Your task to perform on an android device: toggle airplane mode Image 0: 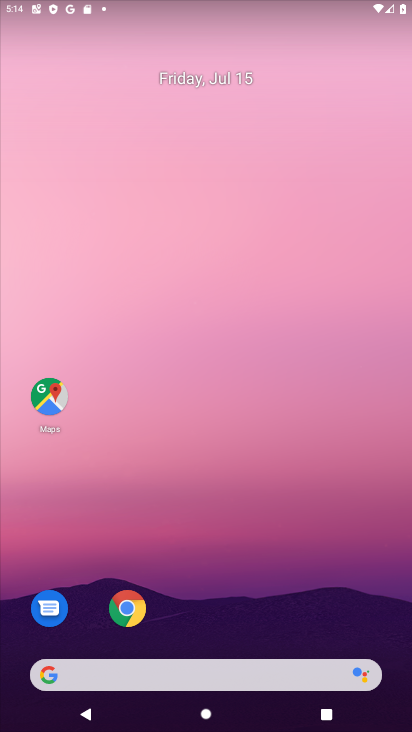
Step 0: drag from (241, 619) to (168, 0)
Your task to perform on an android device: toggle airplane mode Image 1: 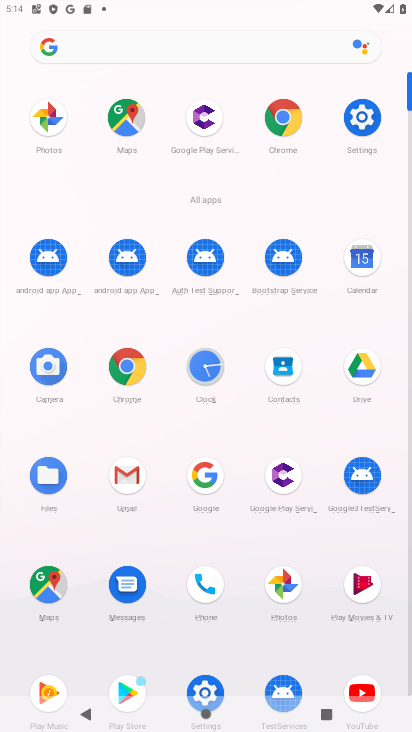
Step 1: click (368, 112)
Your task to perform on an android device: toggle airplane mode Image 2: 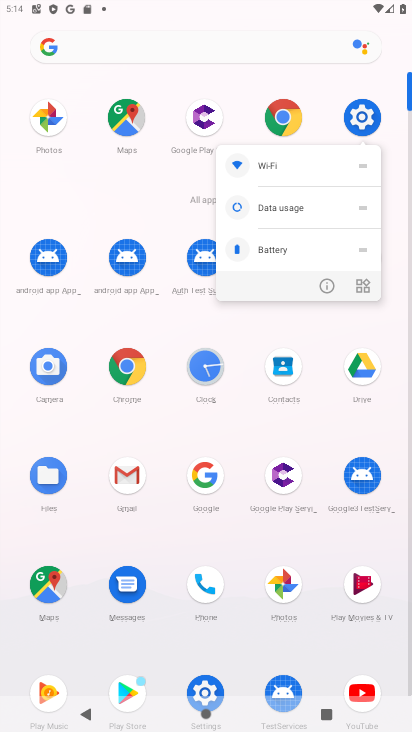
Step 2: click (366, 114)
Your task to perform on an android device: toggle airplane mode Image 3: 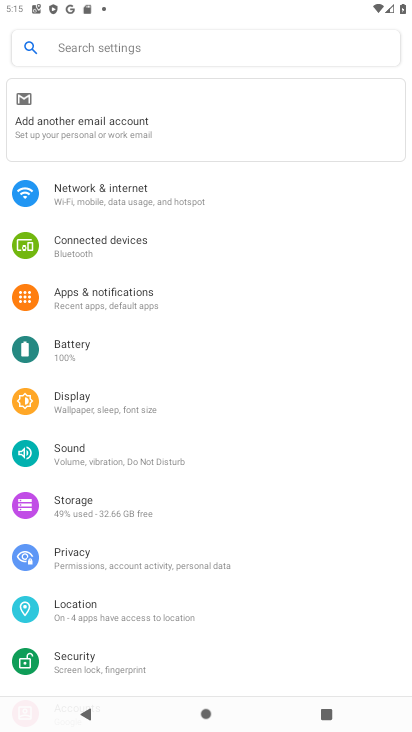
Step 3: click (92, 180)
Your task to perform on an android device: toggle airplane mode Image 4: 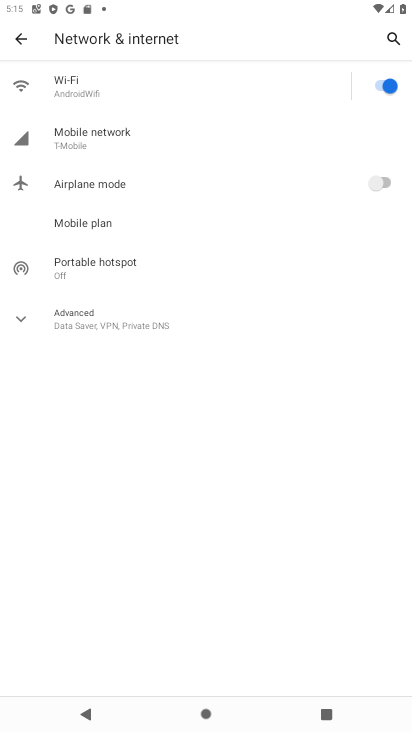
Step 4: click (382, 184)
Your task to perform on an android device: toggle airplane mode Image 5: 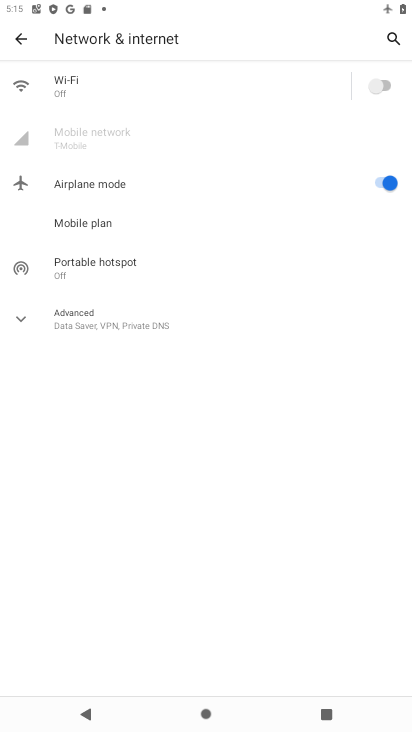
Step 5: task complete